Your task to perform on an android device: Search for "apple airpods pro" on ebay, select the first entry, and add it to the cart. Image 0: 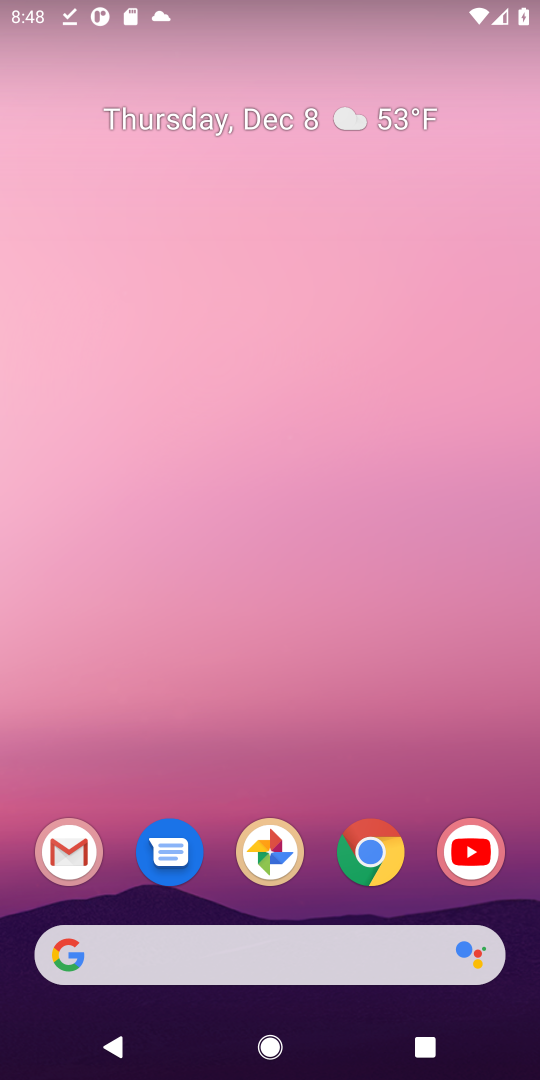
Step 0: click (228, 949)
Your task to perform on an android device: Search for "apple airpods pro" on ebay, select the first entry, and add it to the cart. Image 1: 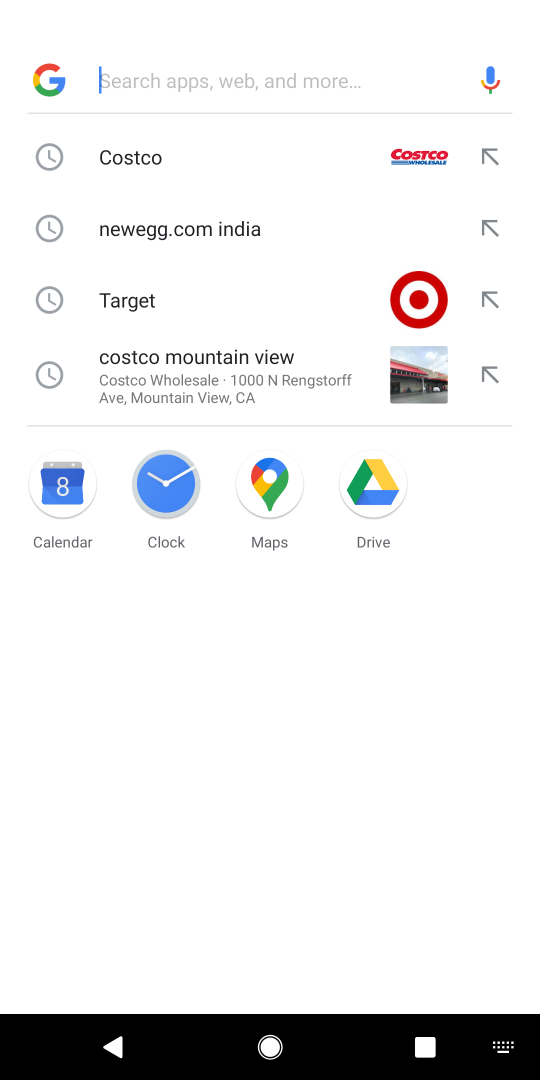
Step 1: type "ebay.com"
Your task to perform on an android device: Search for "apple airpods pro" on ebay, select the first entry, and add it to the cart. Image 2: 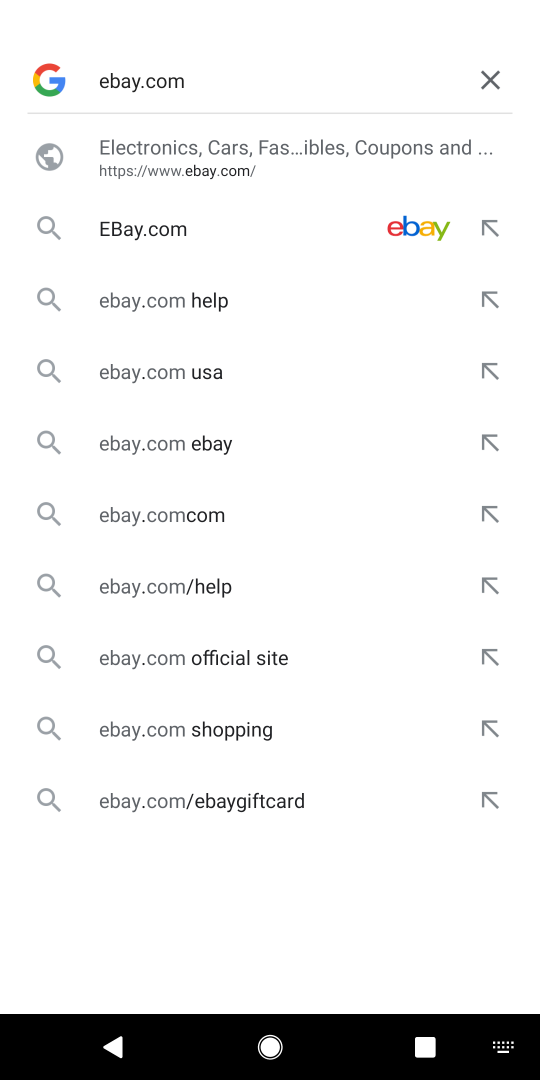
Step 2: click (114, 153)
Your task to perform on an android device: Search for "apple airpods pro" on ebay, select the first entry, and add it to the cart. Image 3: 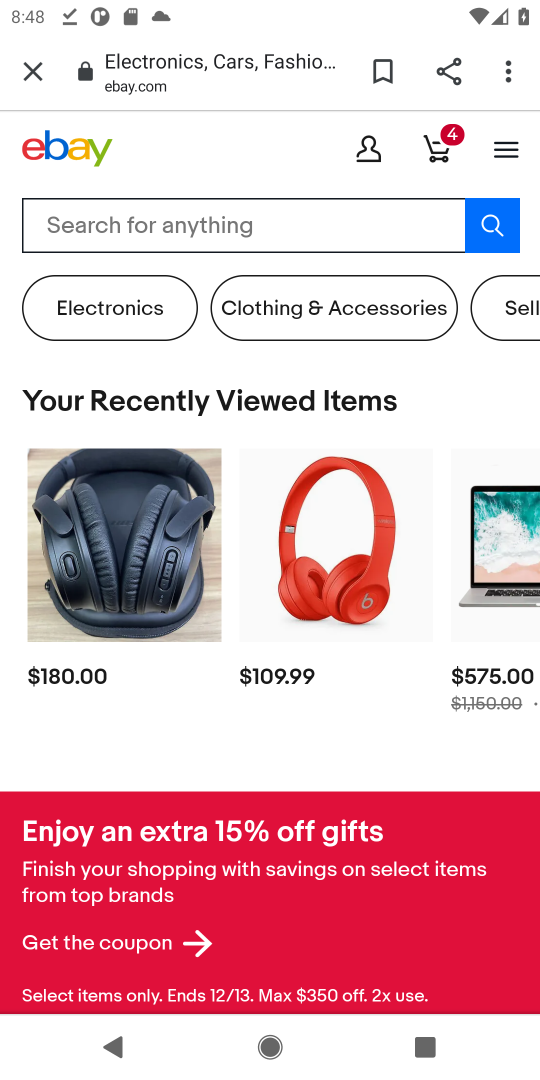
Step 3: click (178, 221)
Your task to perform on an android device: Search for "apple airpods pro" on ebay, select the first entry, and add it to the cart. Image 4: 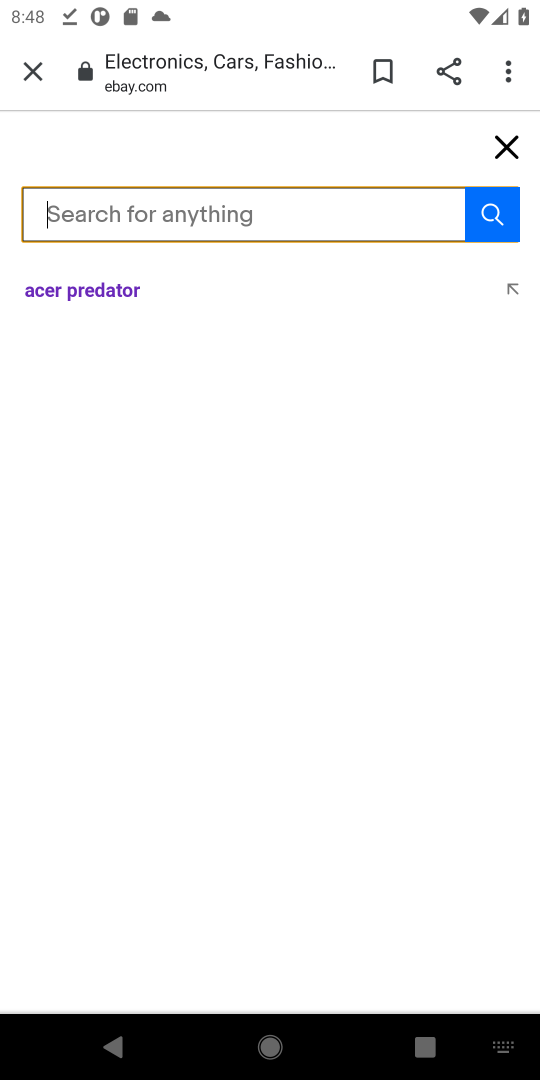
Step 4: type "apple airpod"
Your task to perform on an android device: Search for "apple airpods pro" on ebay, select the first entry, and add it to the cart. Image 5: 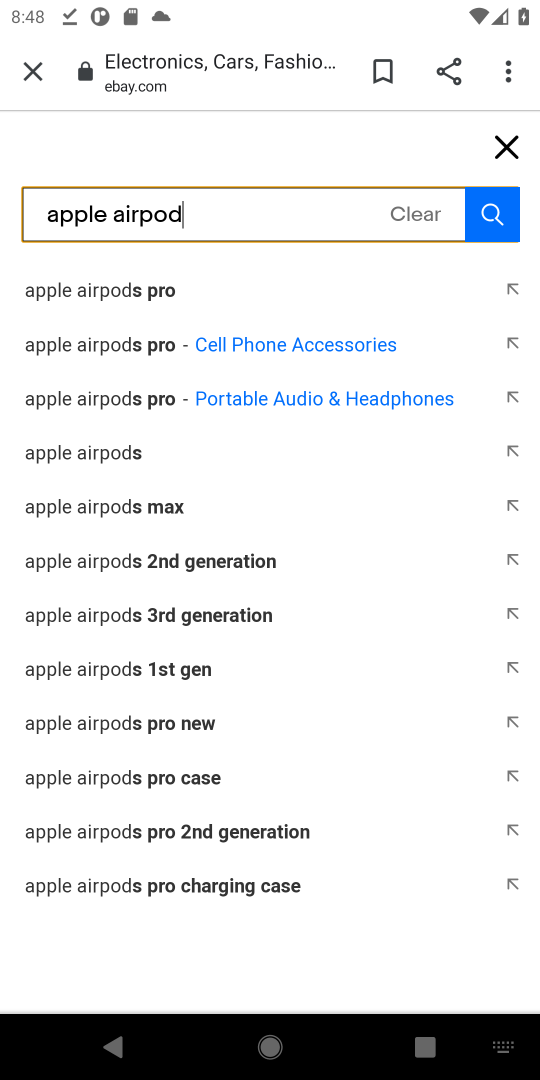
Step 5: click (128, 300)
Your task to perform on an android device: Search for "apple airpods pro" on ebay, select the first entry, and add it to the cart. Image 6: 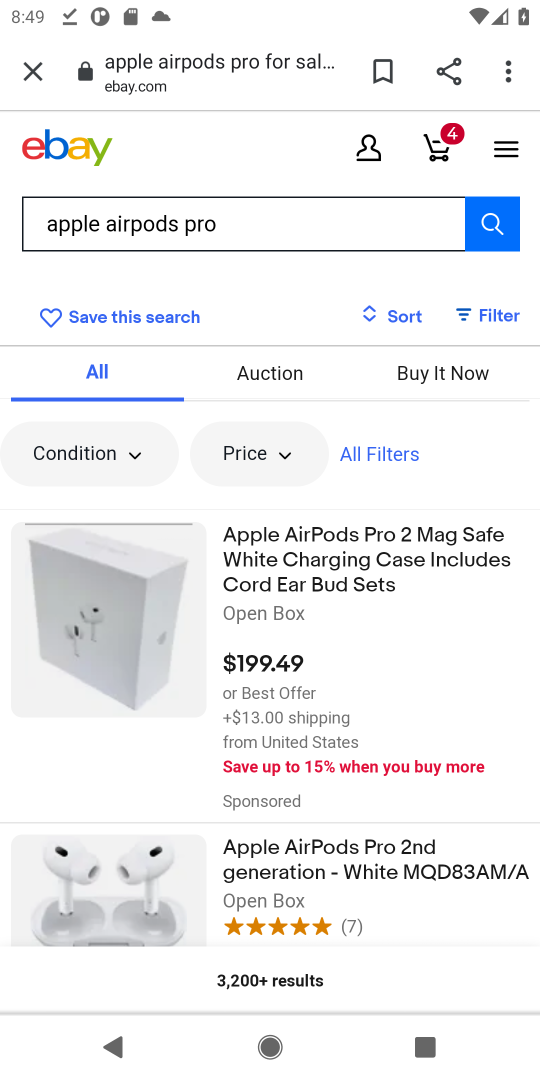
Step 6: click (331, 579)
Your task to perform on an android device: Search for "apple airpods pro" on ebay, select the first entry, and add it to the cart. Image 7: 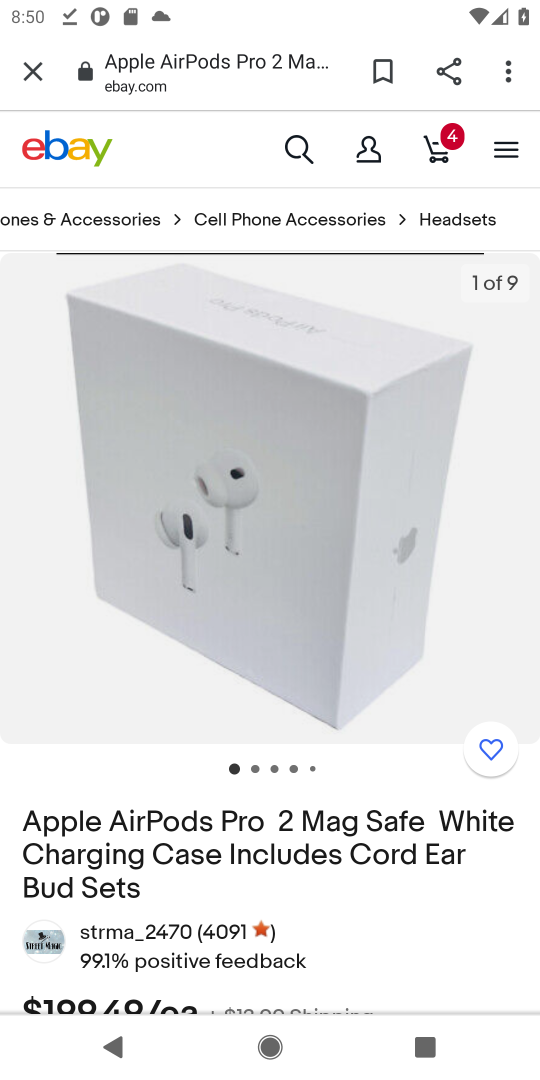
Step 7: drag from (220, 813) to (272, 380)
Your task to perform on an android device: Search for "apple airpods pro" on ebay, select the first entry, and add it to the cart. Image 8: 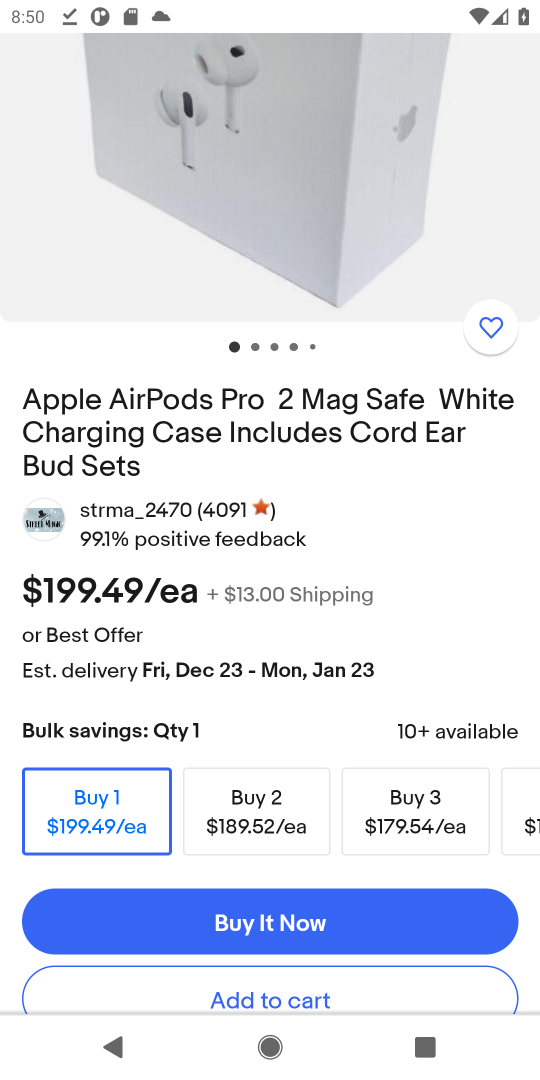
Step 8: click (187, 982)
Your task to perform on an android device: Search for "apple airpods pro" on ebay, select the first entry, and add it to the cart. Image 9: 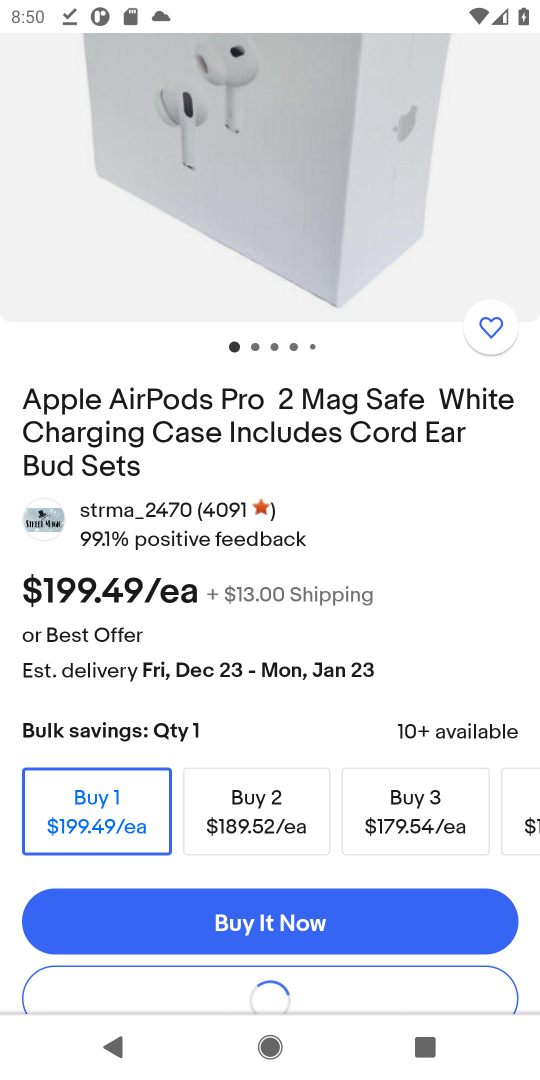
Step 9: task complete